Your task to perform on an android device: Go to eBay Image 0: 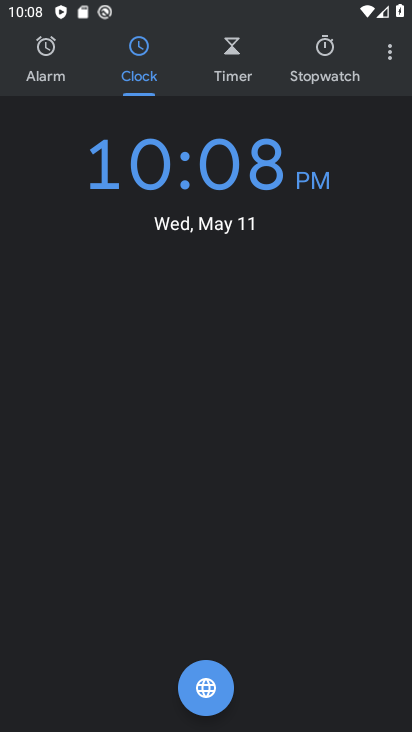
Step 0: press home button
Your task to perform on an android device: Go to eBay Image 1: 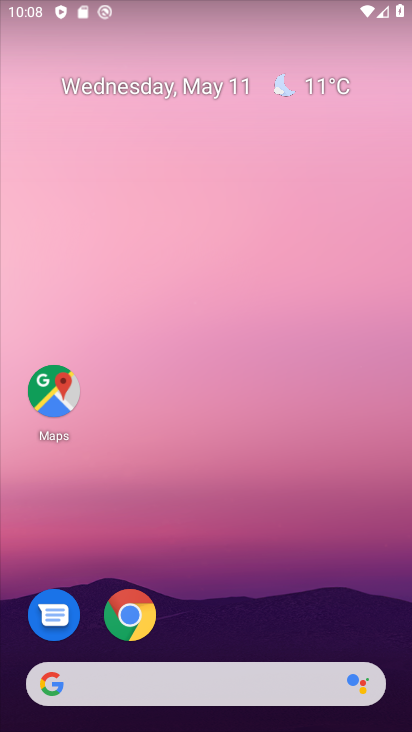
Step 1: click (137, 608)
Your task to perform on an android device: Go to eBay Image 2: 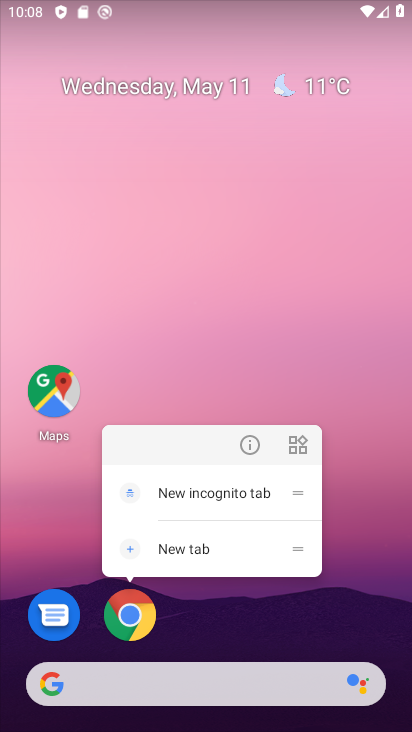
Step 2: click (135, 612)
Your task to perform on an android device: Go to eBay Image 3: 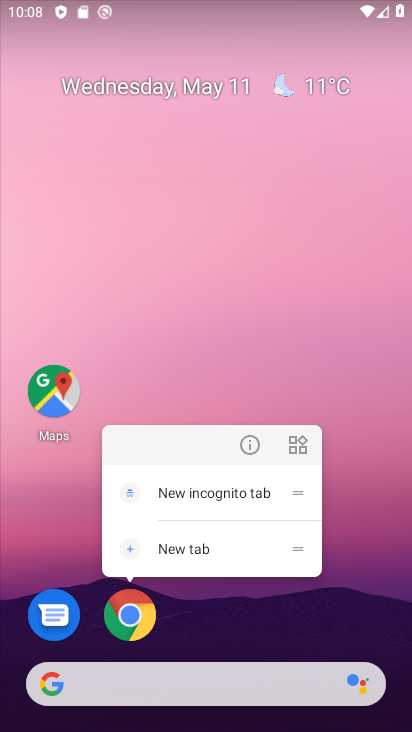
Step 3: click (123, 630)
Your task to perform on an android device: Go to eBay Image 4: 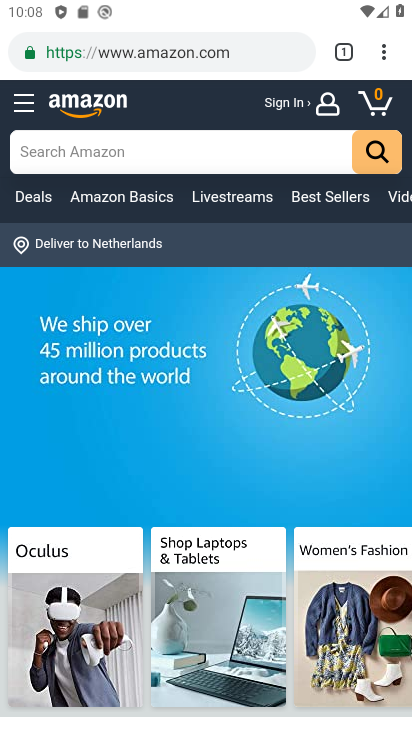
Step 4: click (210, 63)
Your task to perform on an android device: Go to eBay Image 5: 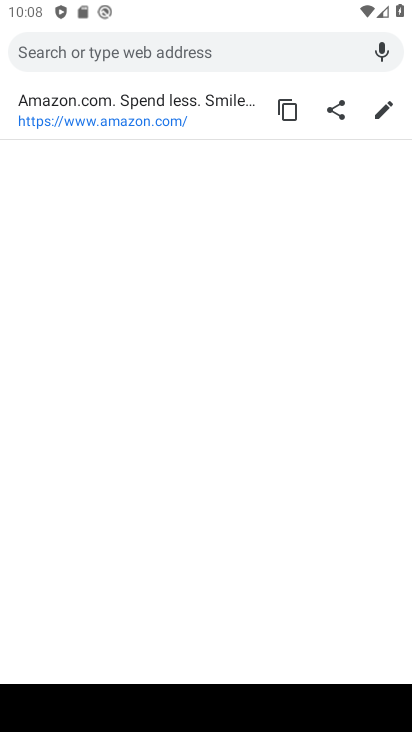
Step 5: type "ebay"
Your task to perform on an android device: Go to eBay Image 6: 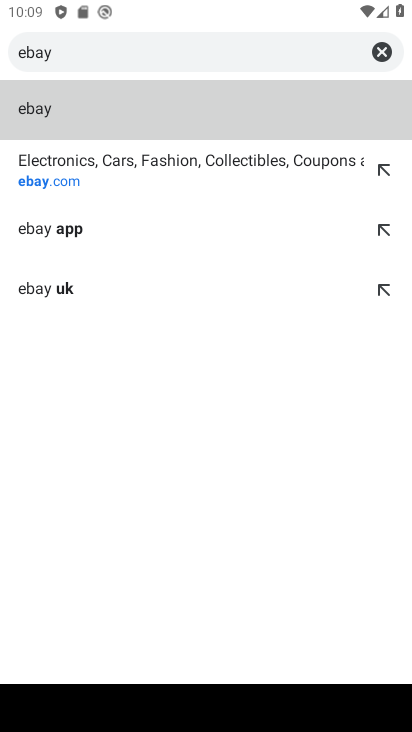
Step 6: click (137, 159)
Your task to perform on an android device: Go to eBay Image 7: 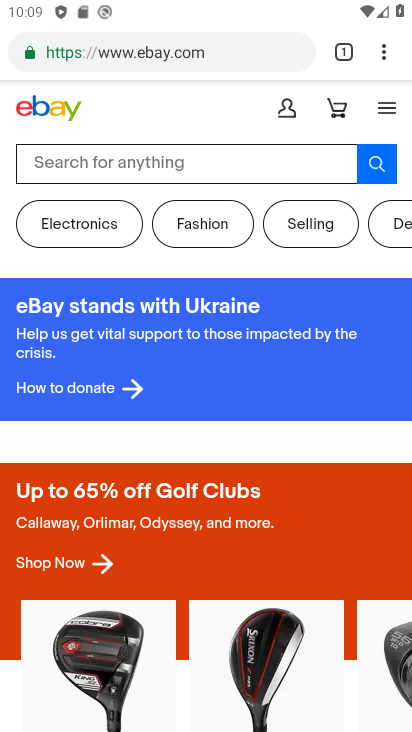
Step 7: task complete